Your task to perform on an android device: turn off notifications settings in the gmail app Image 0: 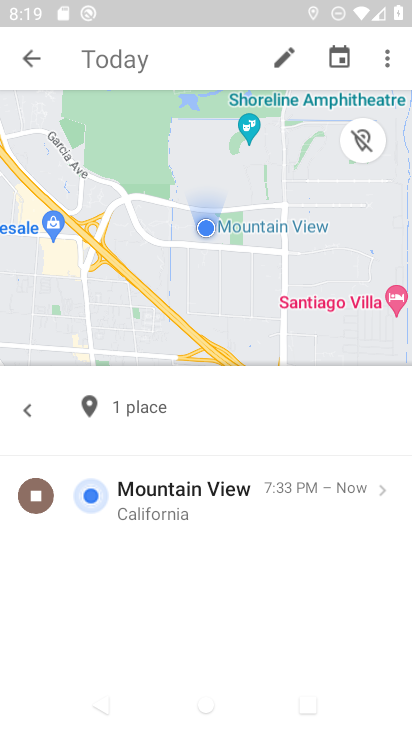
Step 0: press home button
Your task to perform on an android device: turn off notifications settings in the gmail app Image 1: 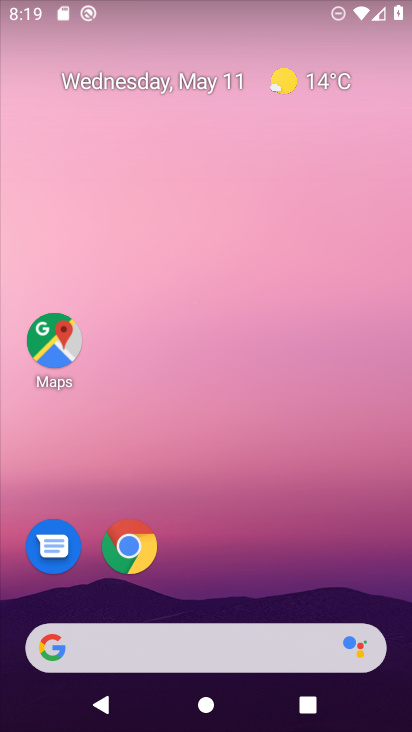
Step 1: drag from (199, 646) to (88, 113)
Your task to perform on an android device: turn off notifications settings in the gmail app Image 2: 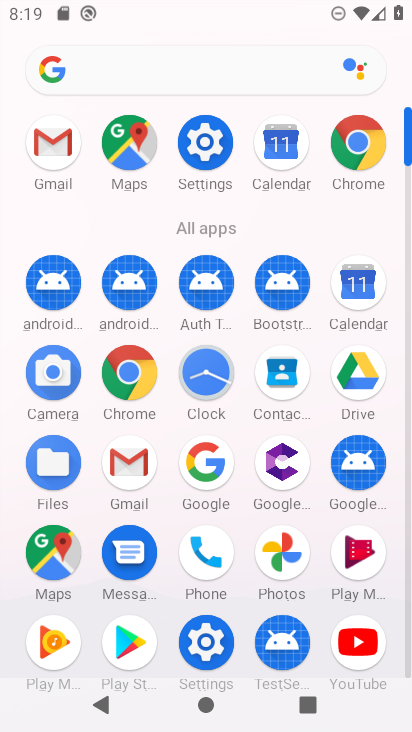
Step 2: click (53, 165)
Your task to perform on an android device: turn off notifications settings in the gmail app Image 3: 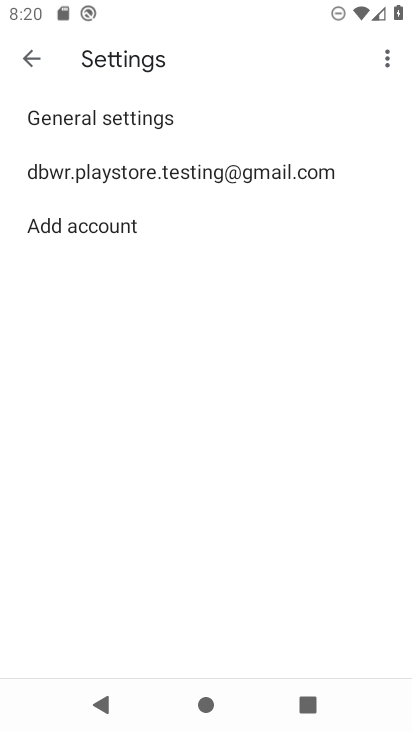
Step 3: click (205, 176)
Your task to perform on an android device: turn off notifications settings in the gmail app Image 4: 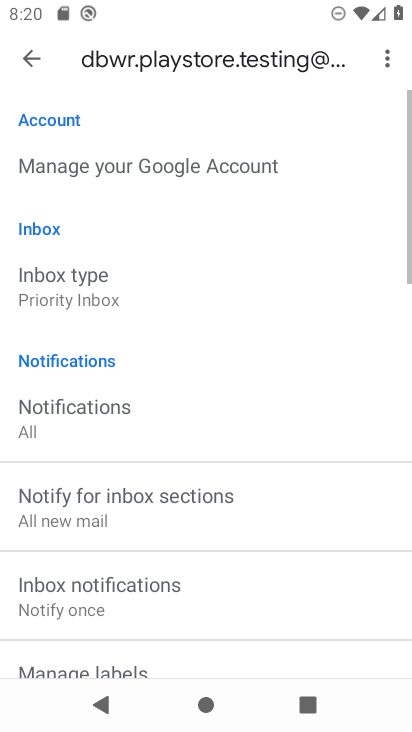
Step 4: drag from (154, 545) to (141, 231)
Your task to perform on an android device: turn off notifications settings in the gmail app Image 5: 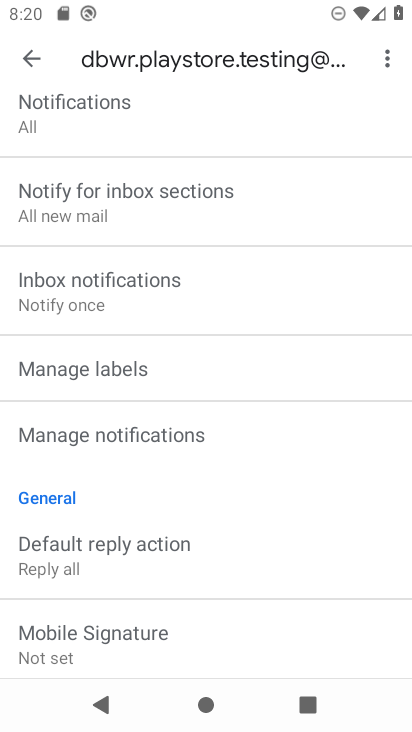
Step 5: click (126, 447)
Your task to perform on an android device: turn off notifications settings in the gmail app Image 6: 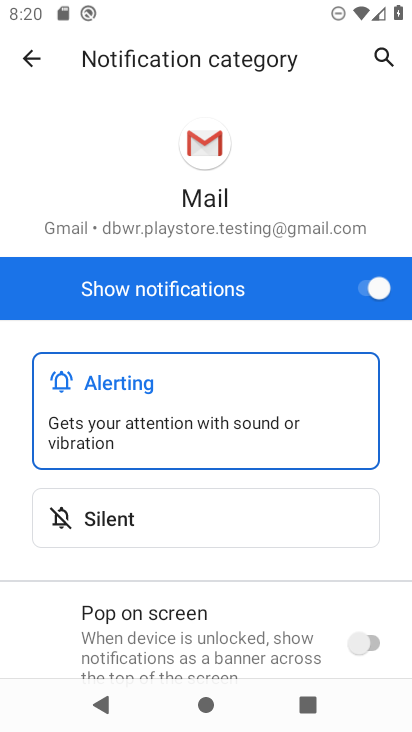
Step 6: task complete